Your task to perform on an android device: Open Google Chrome and open the bookmarks view Image 0: 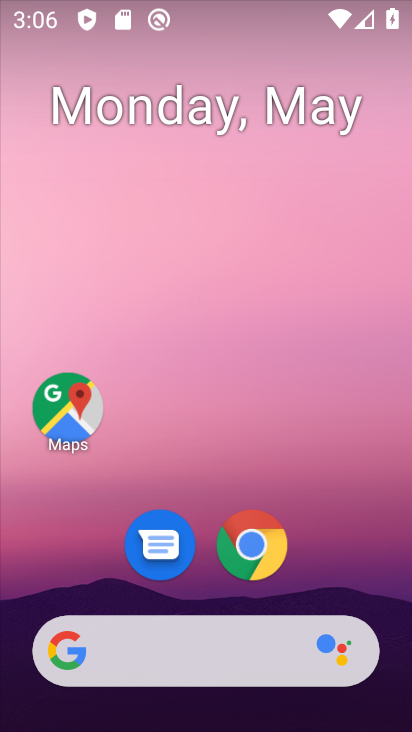
Step 0: click (245, 561)
Your task to perform on an android device: Open Google Chrome and open the bookmarks view Image 1: 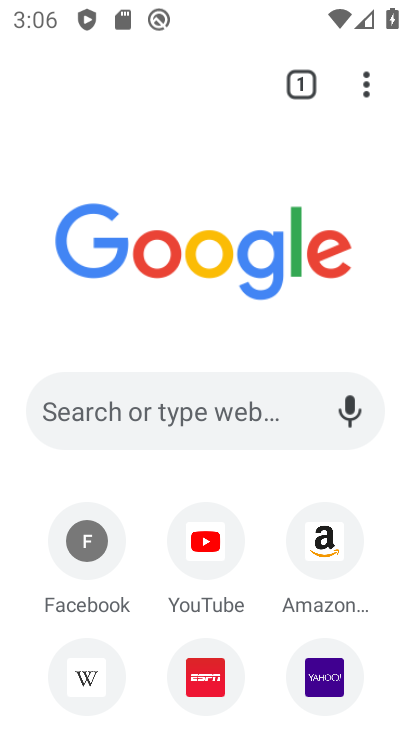
Step 1: task complete